Your task to perform on an android device: Go to calendar. Show me events next week Image 0: 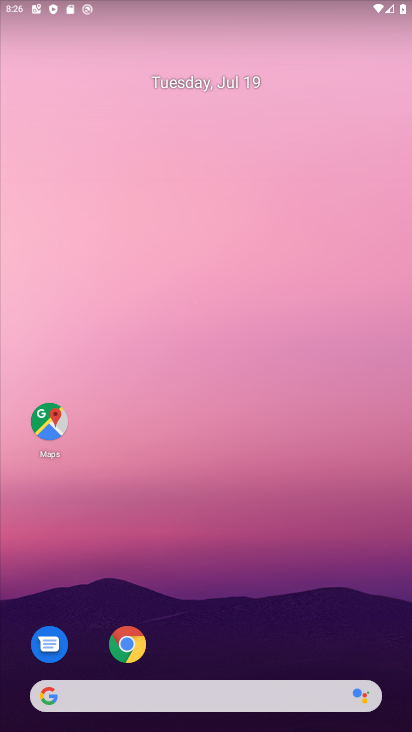
Step 0: drag from (188, 640) to (203, 76)
Your task to perform on an android device: Go to calendar. Show me events next week Image 1: 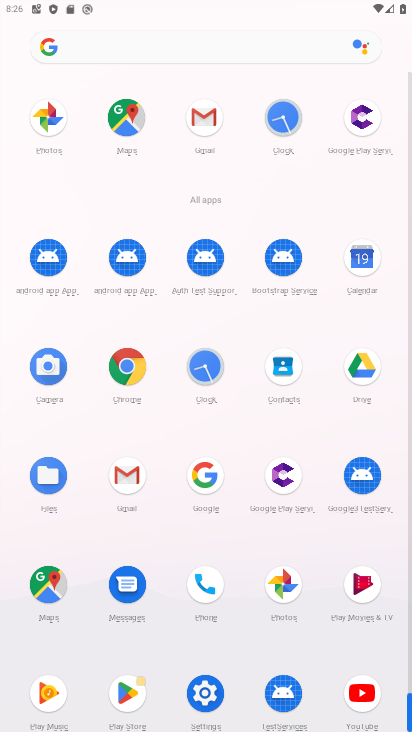
Step 1: click (366, 261)
Your task to perform on an android device: Go to calendar. Show me events next week Image 2: 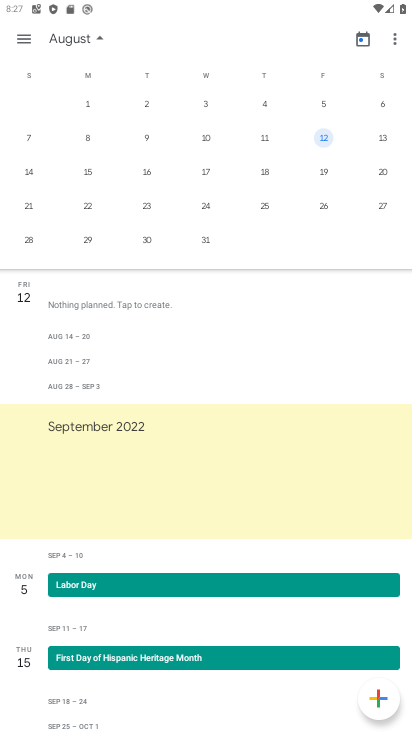
Step 2: drag from (47, 222) to (409, 183)
Your task to perform on an android device: Go to calendar. Show me events next week Image 3: 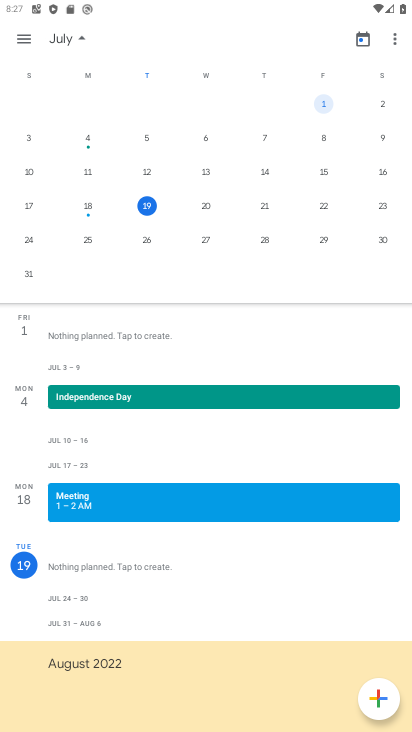
Step 3: click (268, 239)
Your task to perform on an android device: Go to calendar. Show me events next week Image 4: 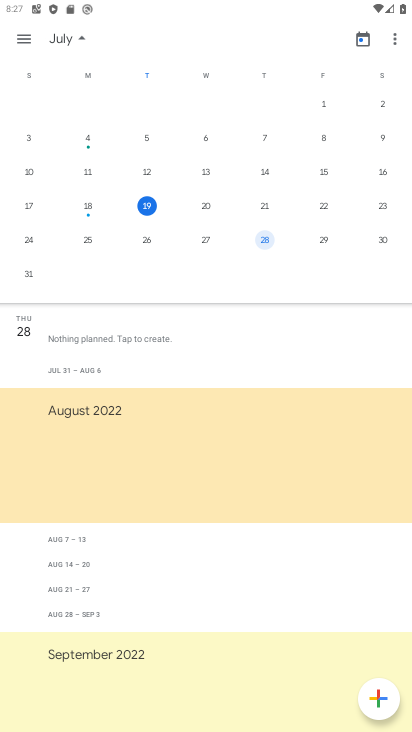
Step 4: task complete